Your task to perform on an android device: change notifications settings Image 0: 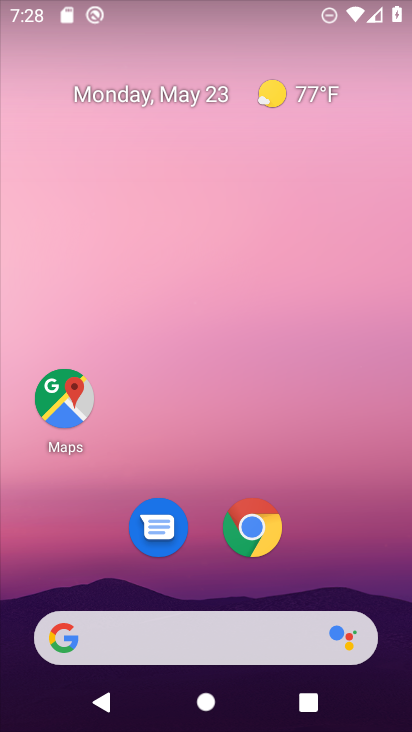
Step 0: press home button
Your task to perform on an android device: change notifications settings Image 1: 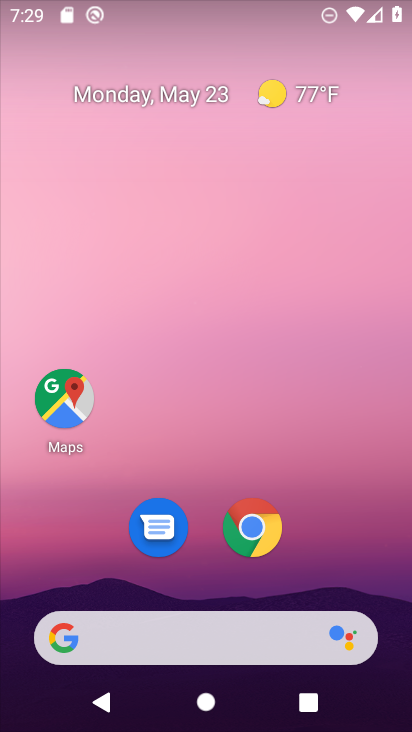
Step 1: drag from (257, 664) to (242, 235)
Your task to perform on an android device: change notifications settings Image 2: 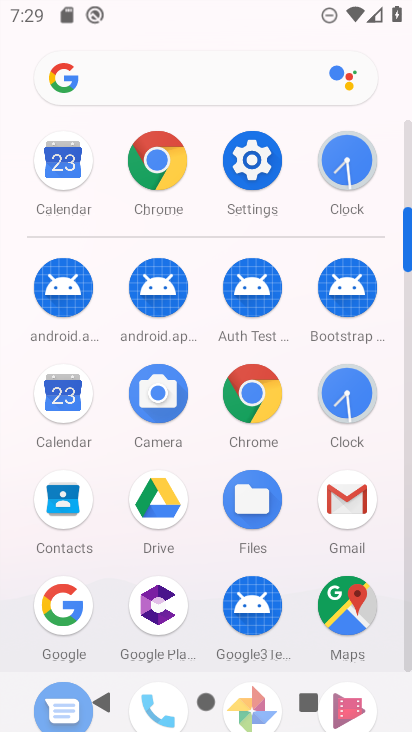
Step 2: click (246, 169)
Your task to perform on an android device: change notifications settings Image 3: 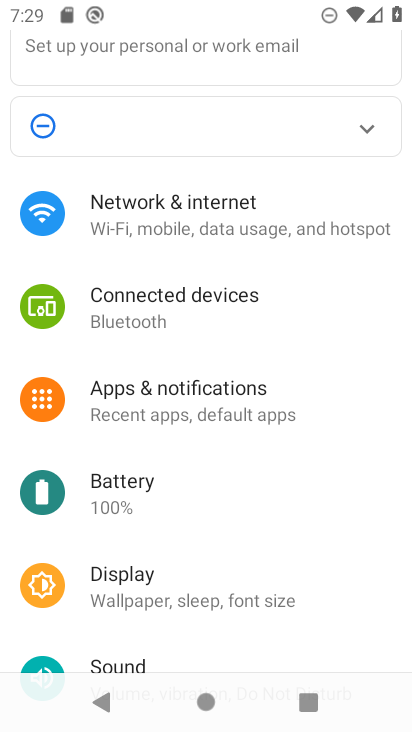
Step 3: drag from (175, 238) to (222, 375)
Your task to perform on an android device: change notifications settings Image 4: 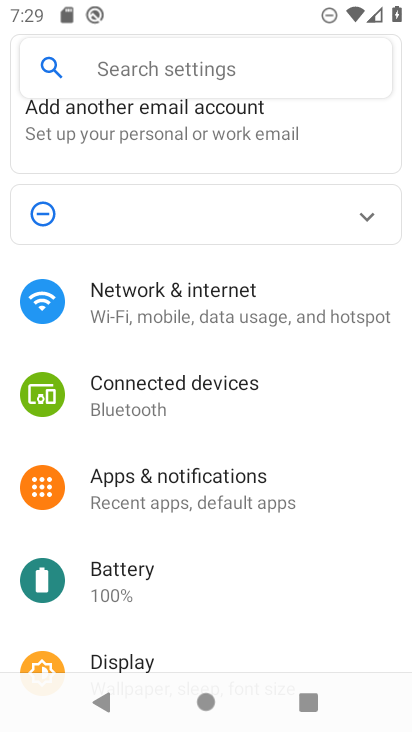
Step 4: click (120, 70)
Your task to perform on an android device: change notifications settings Image 5: 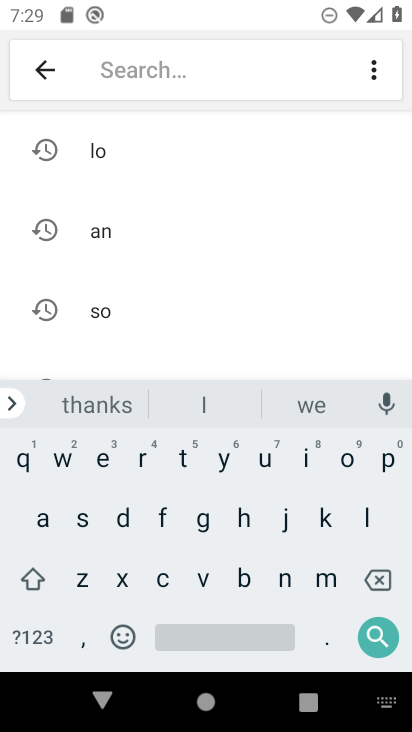
Step 5: click (289, 583)
Your task to perform on an android device: change notifications settings Image 6: 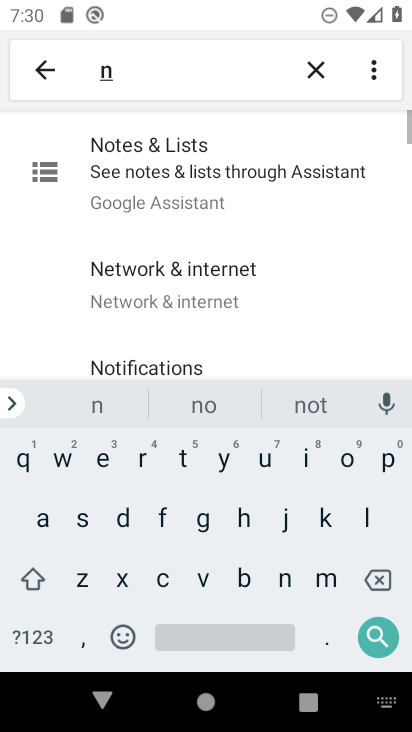
Step 6: click (344, 464)
Your task to perform on an android device: change notifications settings Image 7: 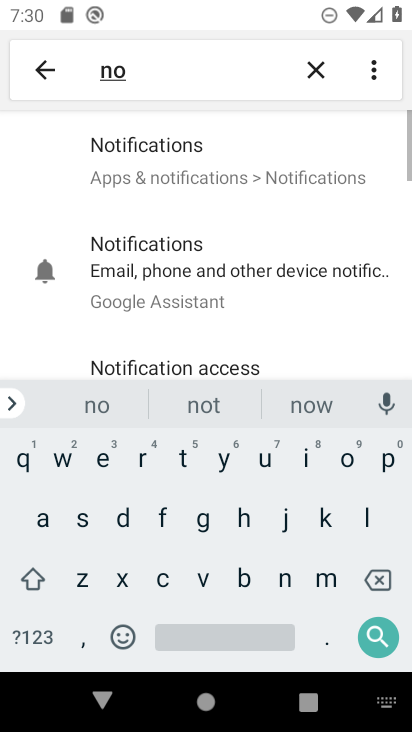
Step 7: click (167, 172)
Your task to perform on an android device: change notifications settings Image 8: 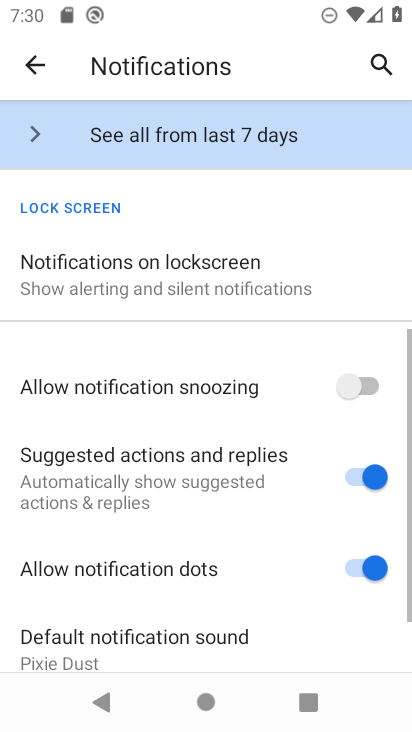
Step 8: click (203, 250)
Your task to perform on an android device: change notifications settings Image 9: 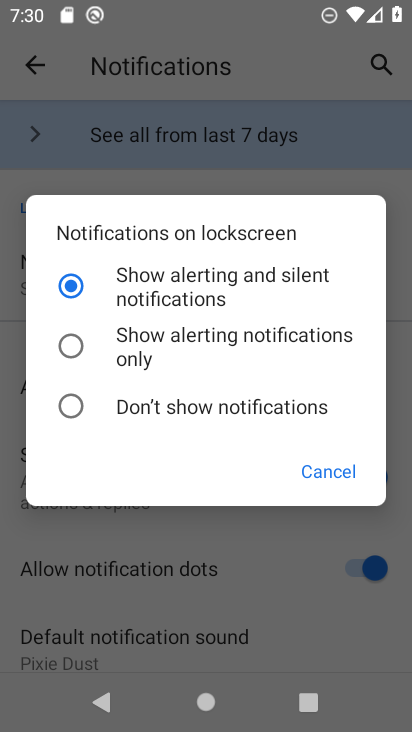
Step 9: task complete